Your task to perform on an android device: toggle sleep mode Image 0: 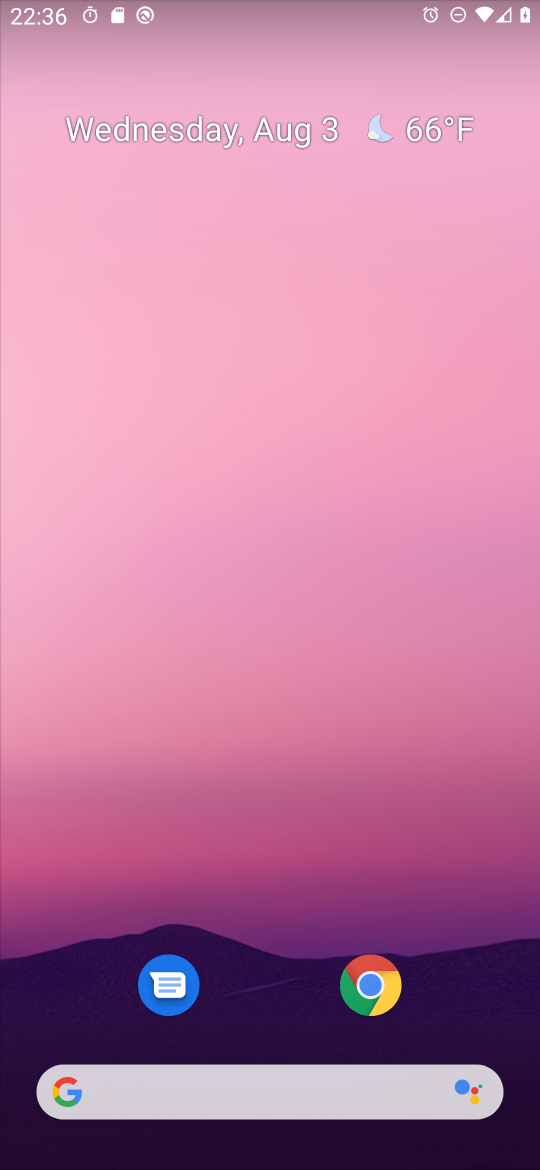
Step 0: drag from (240, 793) to (228, 234)
Your task to perform on an android device: toggle sleep mode Image 1: 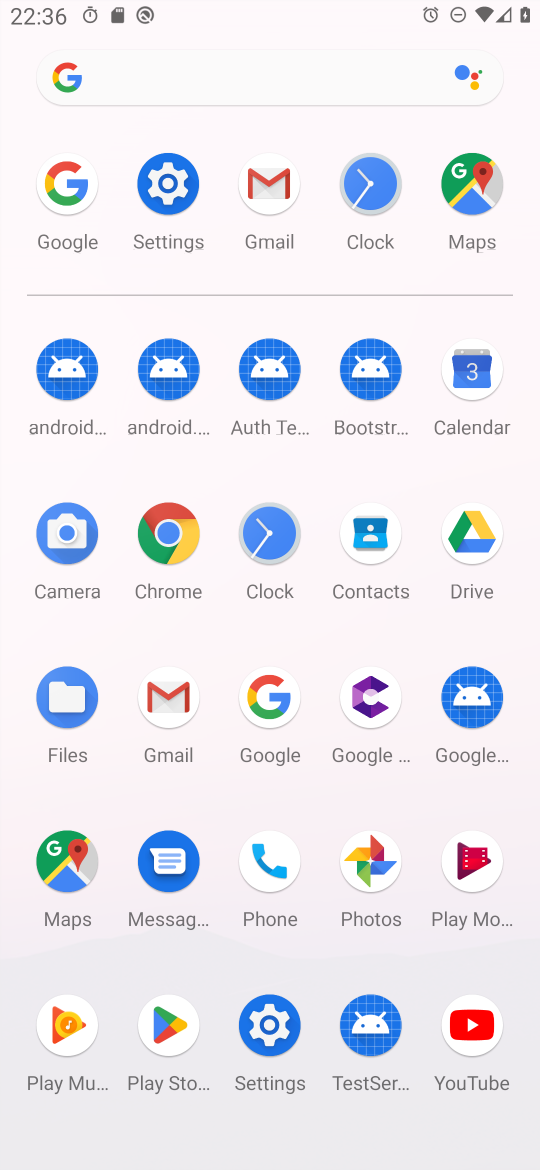
Step 1: click (174, 198)
Your task to perform on an android device: toggle sleep mode Image 2: 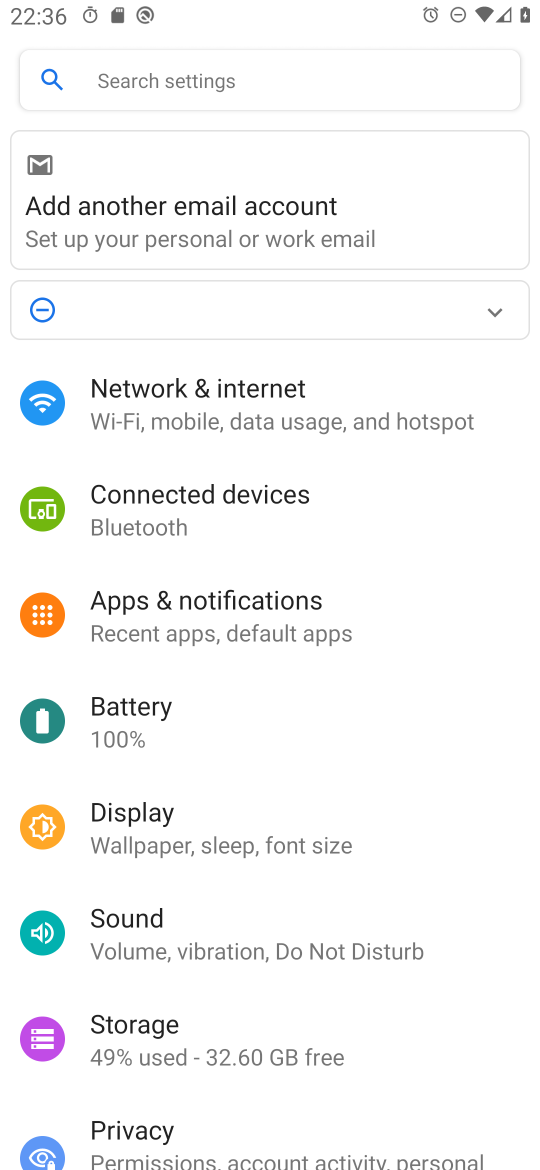
Step 2: click (164, 832)
Your task to perform on an android device: toggle sleep mode Image 3: 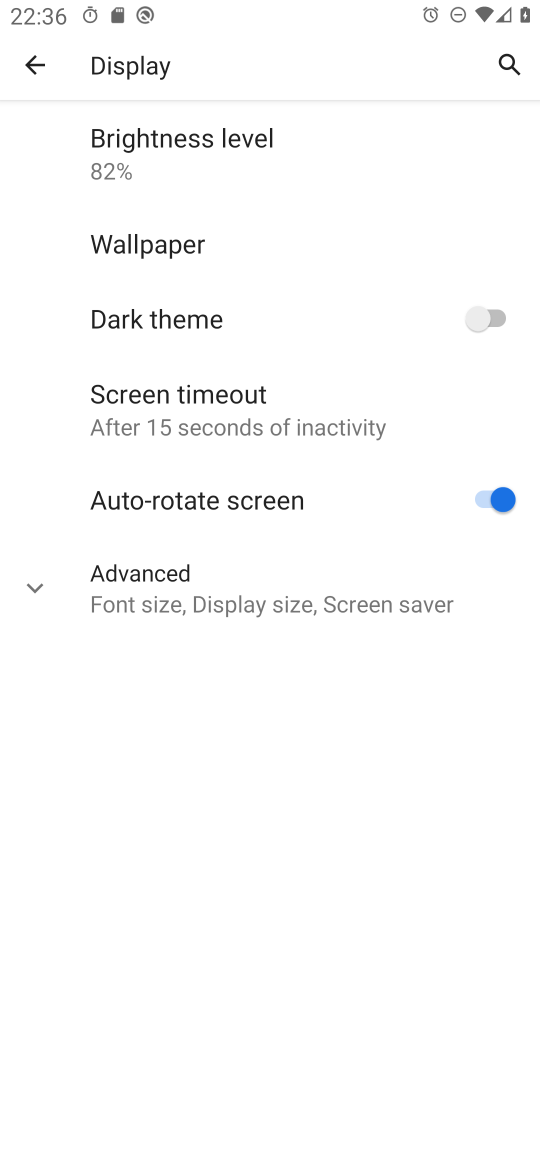
Step 3: click (224, 387)
Your task to perform on an android device: toggle sleep mode Image 4: 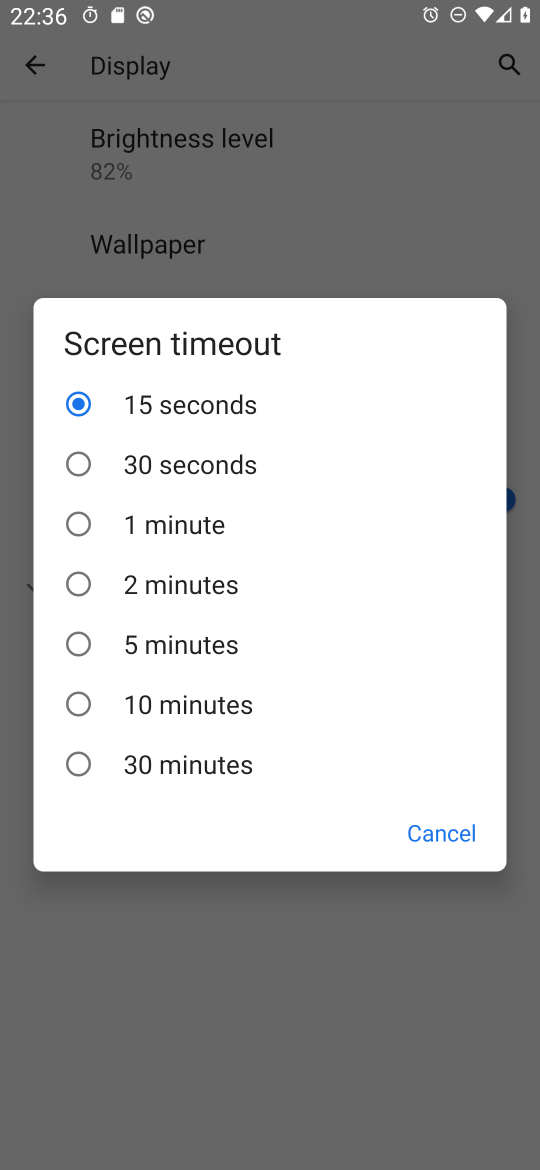
Step 4: click (182, 725)
Your task to perform on an android device: toggle sleep mode Image 5: 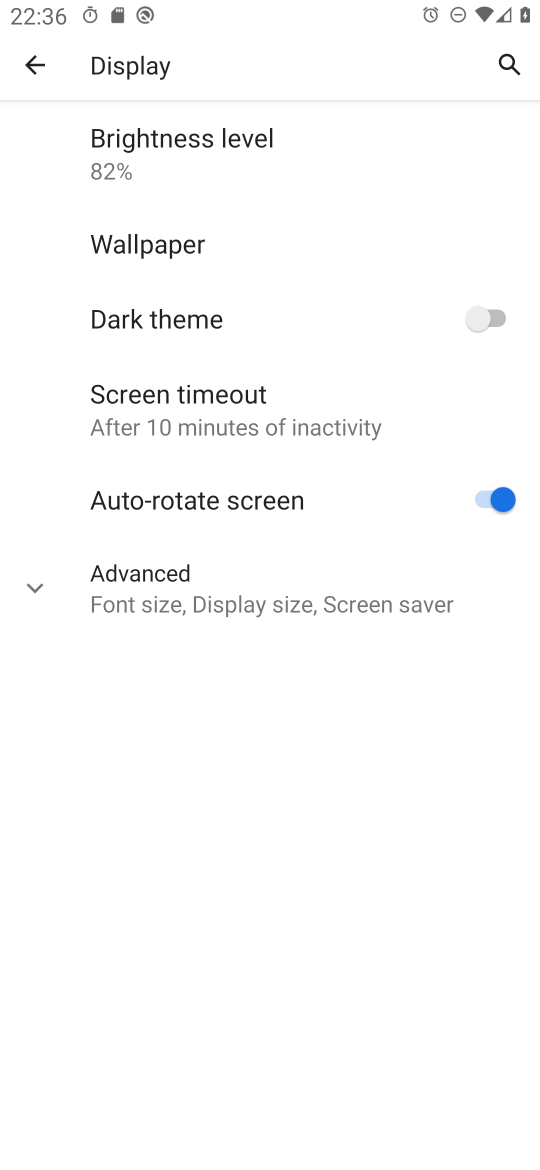
Step 5: task complete